Your task to perform on an android device: Show me recent news Image 0: 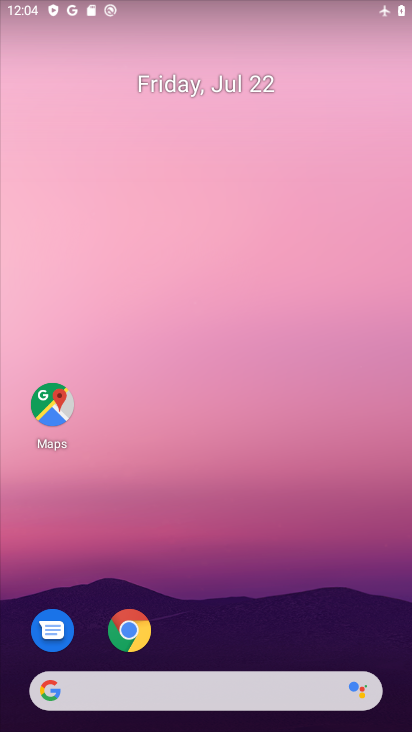
Step 0: click (211, 669)
Your task to perform on an android device: Show me recent news Image 1: 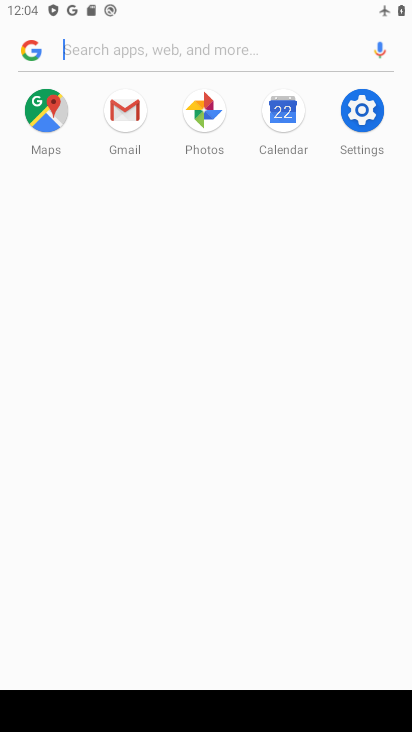
Step 1: type "recent news"
Your task to perform on an android device: Show me recent news Image 2: 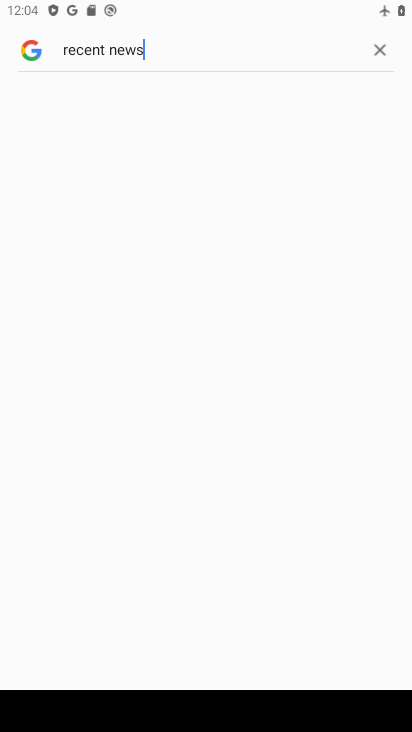
Step 2: type ""
Your task to perform on an android device: Show me recent news Image 3: 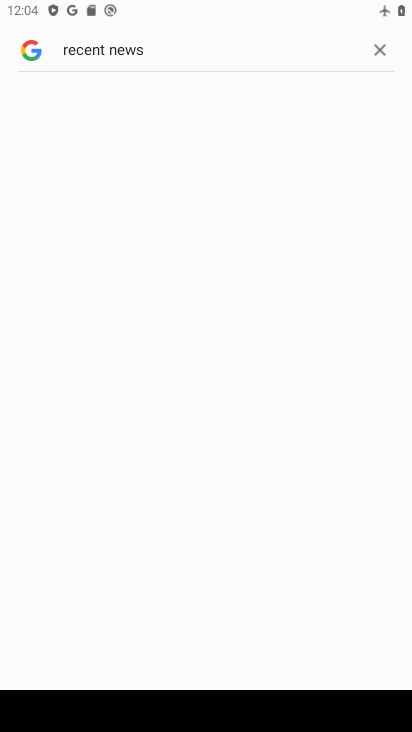
Step 3: task complete